Your task to perform on an android device: turn on translation in the chrome app Image 0: 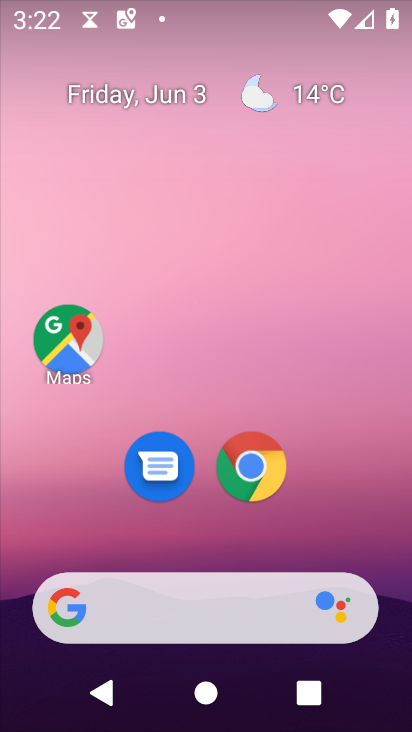
Step 0: click (270, 464)
Your task to perform on an android device: turn on translation in the chrome app Image 1: 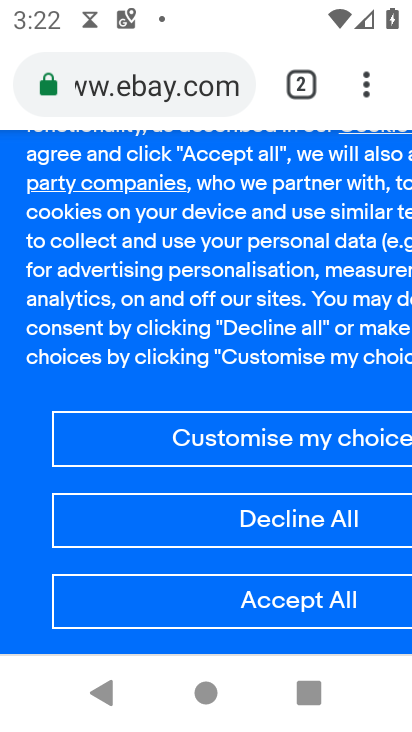
Step 1: click (361, 80)
Your task to perform on an android device: turn on translation in the chrome app Image 2: 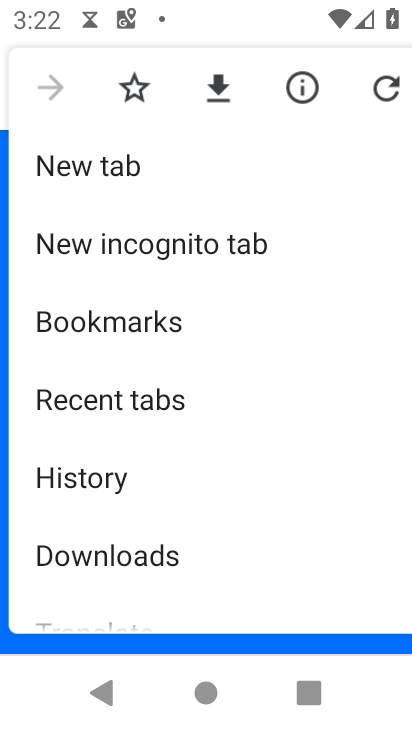
Step 2: drag from (238, 468) to (220, 180)
Your task to perform on an android device: turn on translation in the chrome app Image 3: 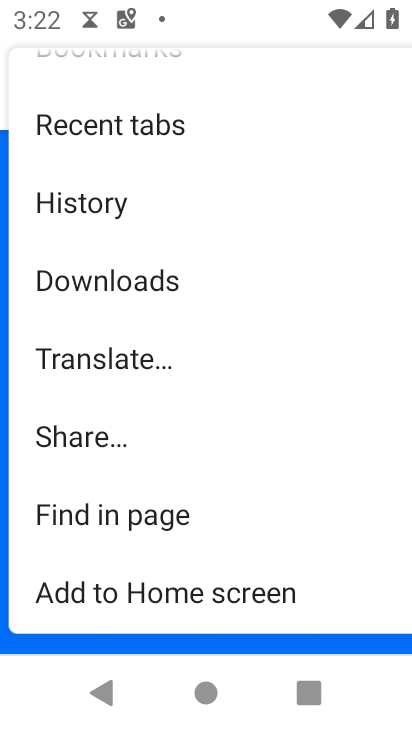
Step 3: click (160, 360)
Your task to perform on an android device: turn on translation in the chrome app Image 4: 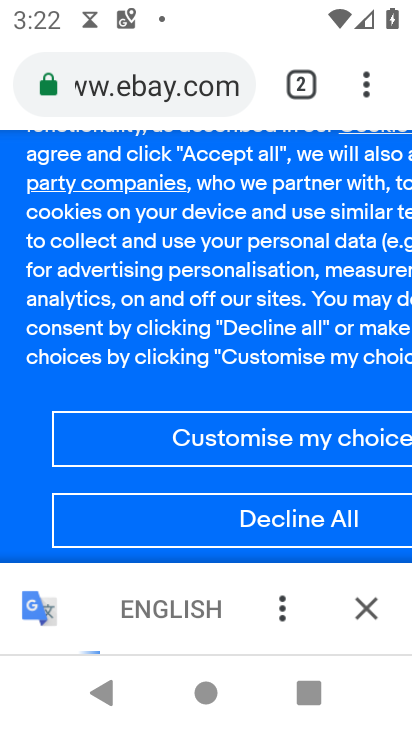
Step 4: click (274, 595)
Your task to perform on an android device: turn on translation in the chrome app Image 5: 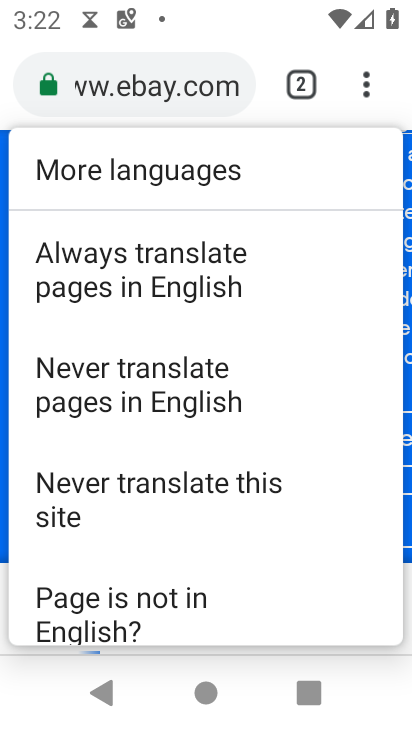
Step 5: click (130, 252)
Your task to perform on an android device: turn on translation in the chrome app Image 6: 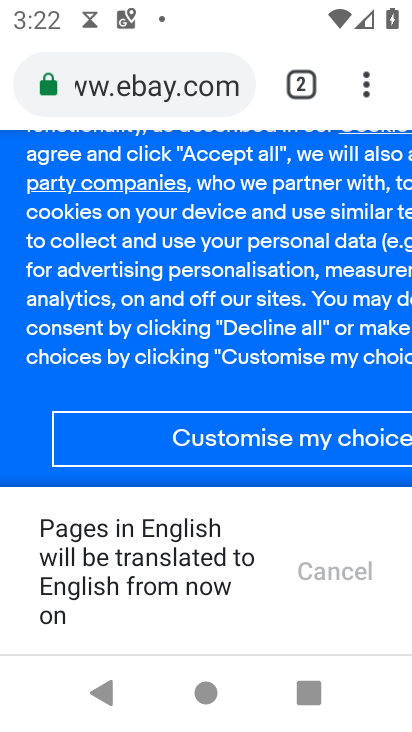
Step 6: task complete